Your task to perform on an android device: Show me productivity apps on the Play Store Image 0: 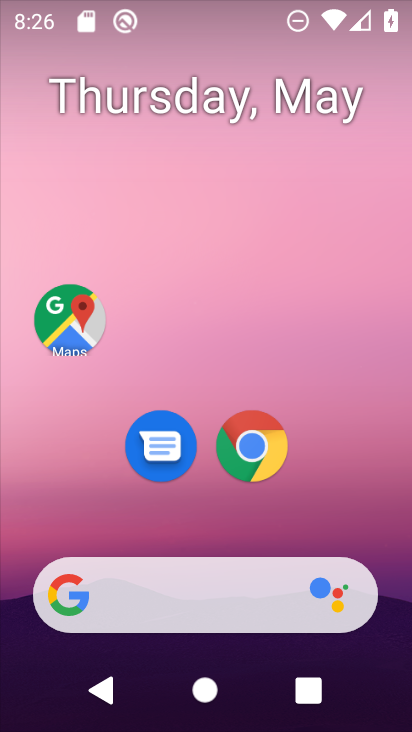
Step 0: drag from (351, 479) to (346, 136)
Your task to perform on an android device: Show me productivity apps on the Play Store Image 1: 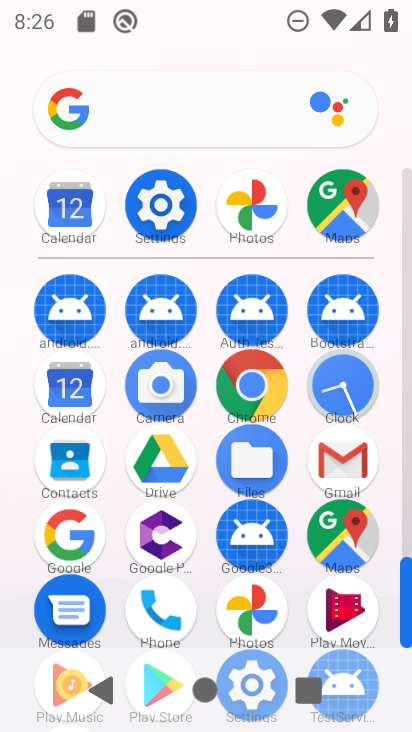
Step 1: drag from (204, 566) to (232, 241)
Your task to perform on an android device: Show me productivity apps on the Play Store Image 2: 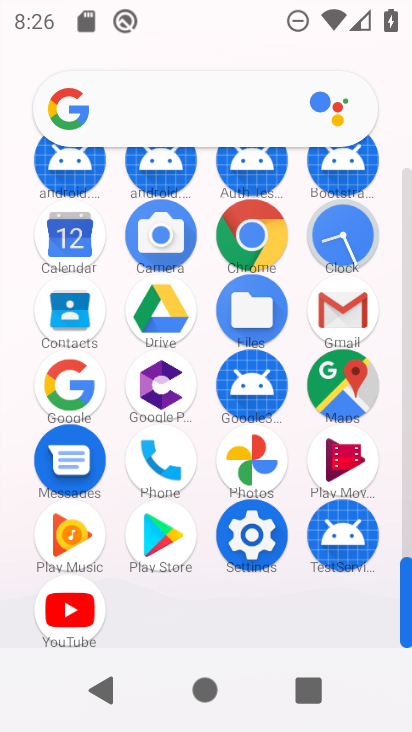
Step 2: click (162, 534)
Your task to perform on an android device: Show me productivity apps on the Play Store Image 3: 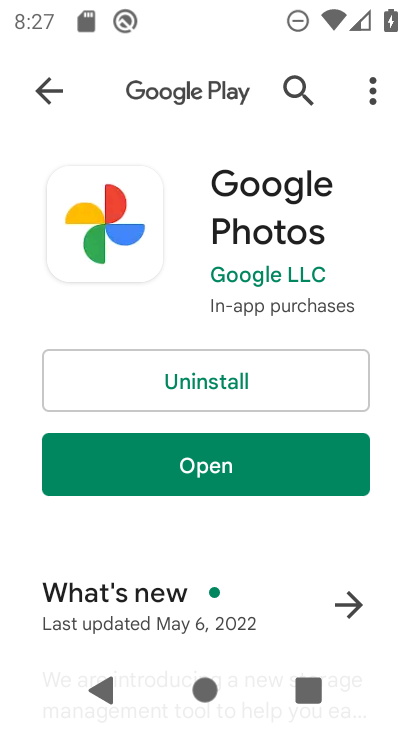
Step 3: press home button
Your task to perform on an android device: Show me productivity apps on the Play Store Image 4: 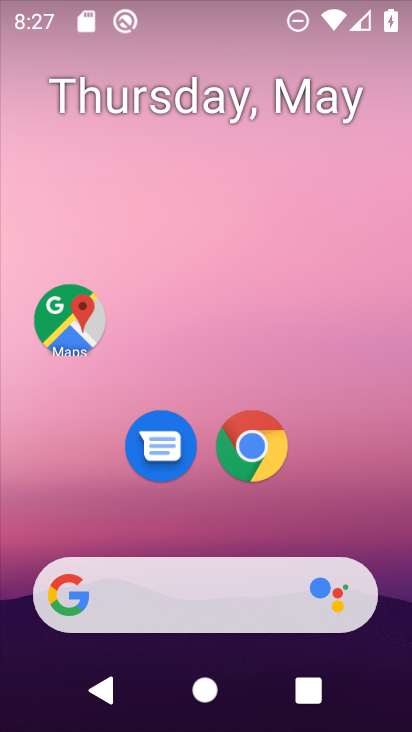
Step 4: drag from (363, 453) to (320, 100)
Your task to perform on an android device: Show me productivity apps on the Play Store Image 5: 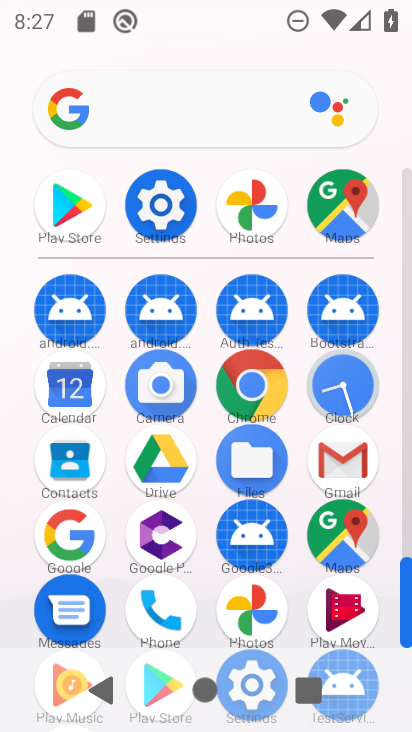
Step 5: drag from (185, 652) to (178, 341)
Your task to perform on an android device: Show me productivity apps on the Play Store Image 6: 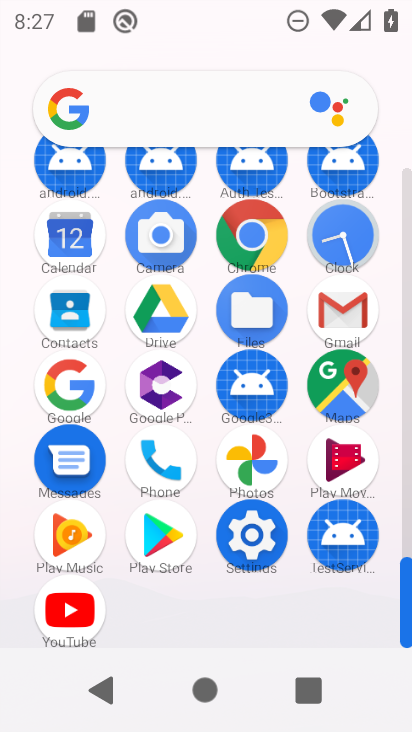
Step 6: click (178, 522)
Your task to perform on an android device: Show me productivity apps on the Play Store Image 7: 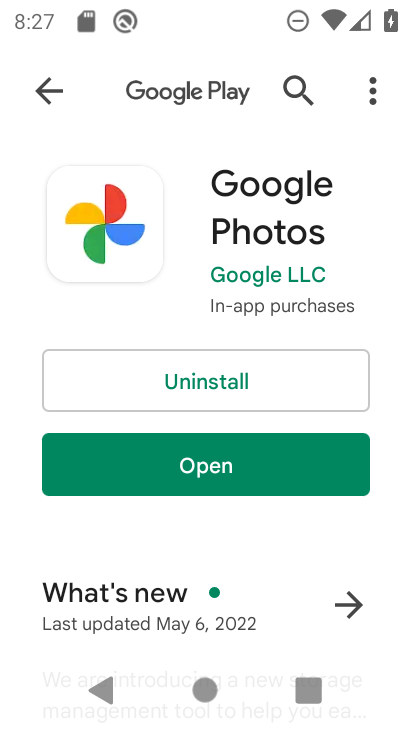
Step 7: click (36, 92)
Your task to perform on an android device: Show me productivity apps on the Play Store Image 8: 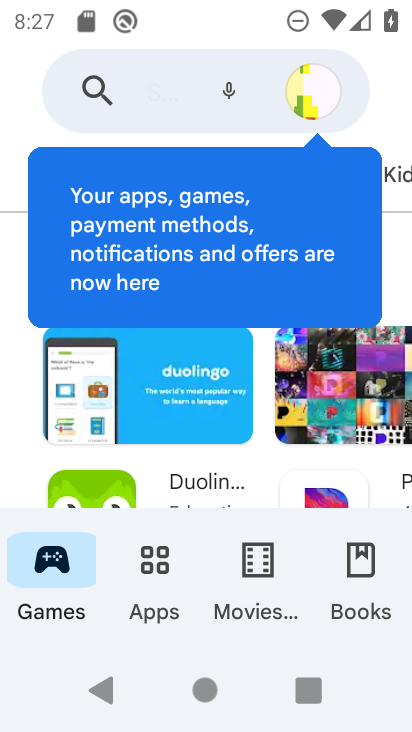
Step 8: click (148, 573)
Your task to perform on an android device: Show me productivity apps on the Play Store Image 9: 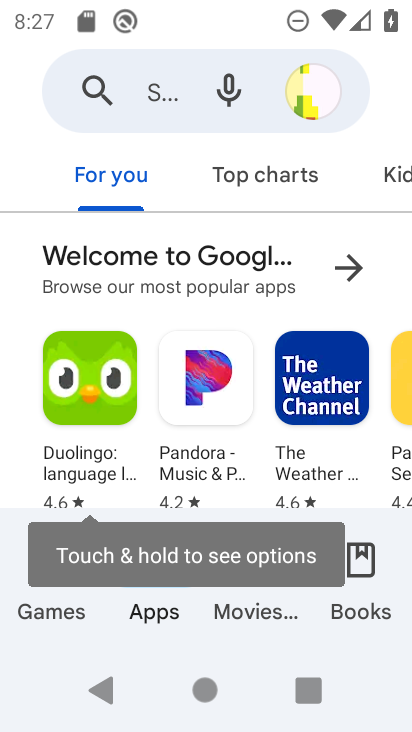
Step 9: drag from (340, 173) to (35, 179)
Your task to perform on an android device: Show me productivity apps on the Play Store Image 10: 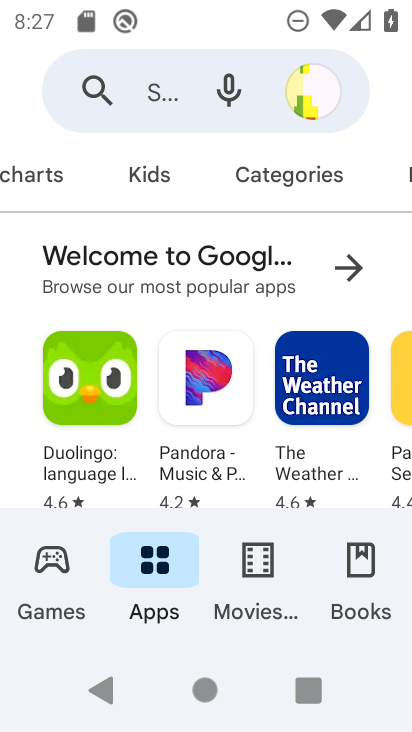
Step 10: click (263, 168)
Your task to perform on an android device: Show me productivity apps on the Play Store Image 11: 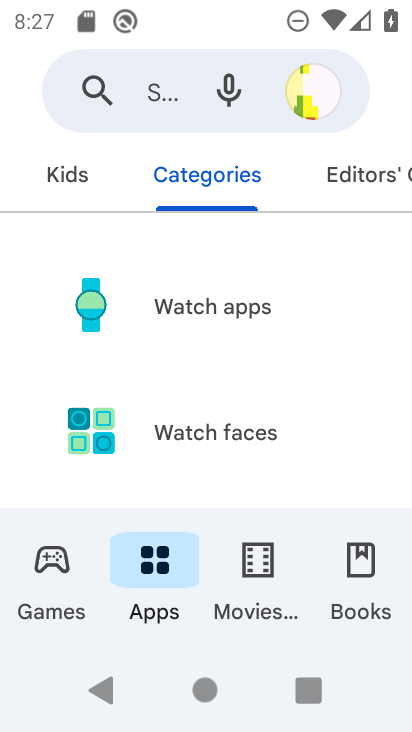
Step 11: drag from (230, 441) to (230, 195)
Your task to perform on an android device: Show me productivity apps on the Play Store Image 12: 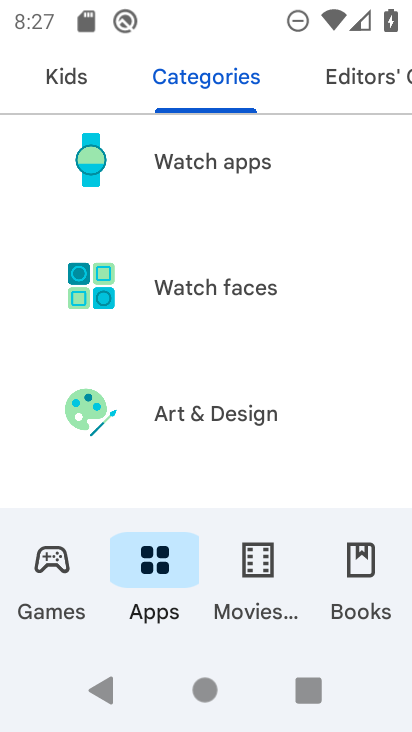
Step 12: drag from (234, 432) to (237, 201)
Your task to perform on an android device: Show me productivity apps on the Play Store Image 13: 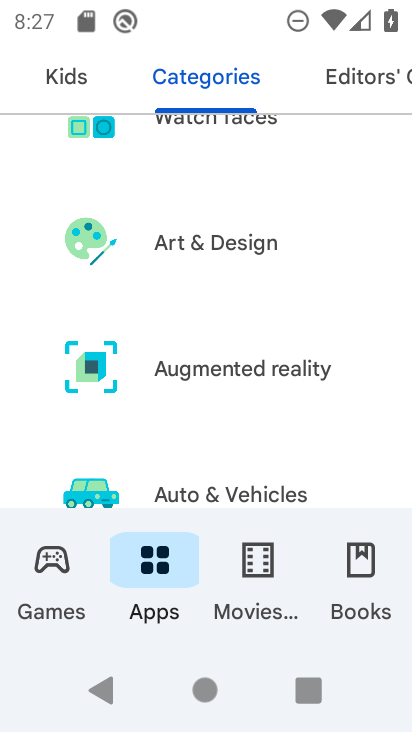
Step 13: drag from (225, 445) to (285, 186)
Your task to perform on an android device: Show me productivity apps on the Play Store Image 14: 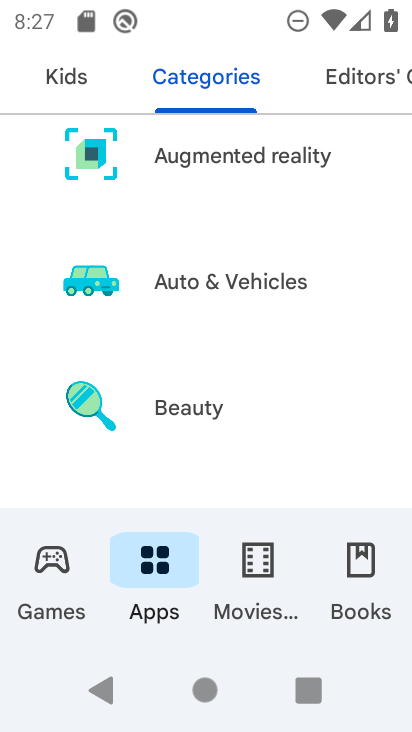
Step 14: drag from (232, 456) to (288, 167)
Your task to perform on an android device: Show me productivity apps on the Play Store Image 15: 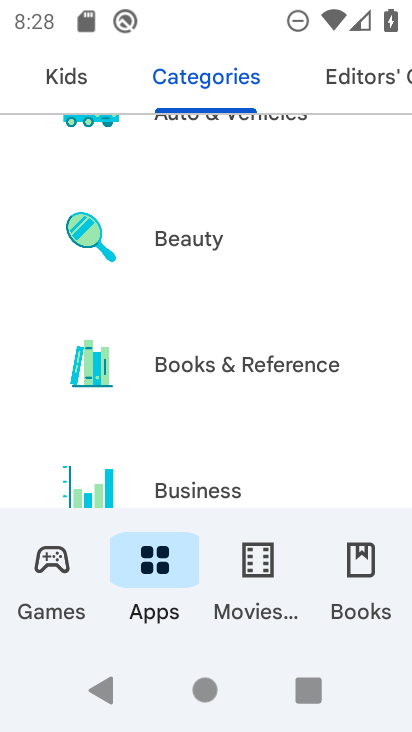
Step 15: drag from (303, 468) to (306, 176)
Your task to perform on an android device: Show me productivity apps on the Play Store Image 16: 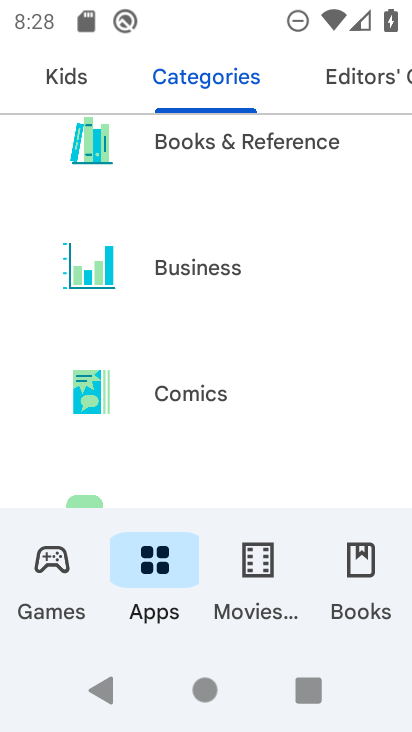
Step 16: drag from (288, 425) to (282, 243)
Your task to perform on an android device: Show me productivity apps on the Play Store Image 17: 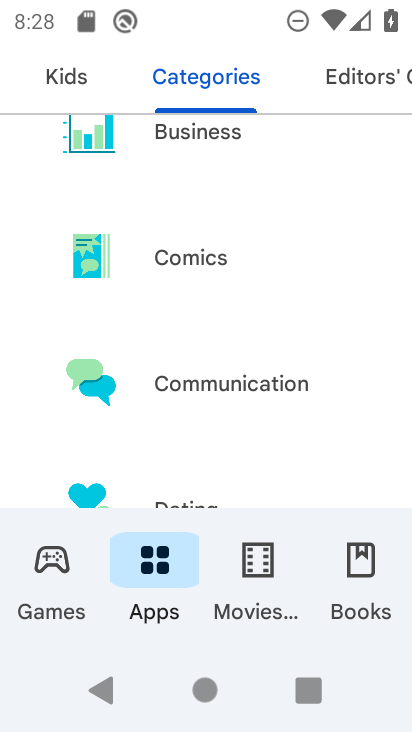
Step 17: drag from (346, 427) to (343, 141)
Your task to perform on an android device: Show me productivity apps on the Play Store Image 18: 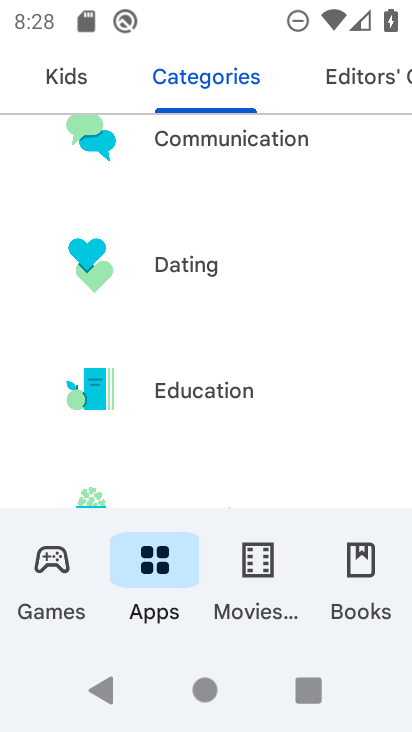
Step 18: drag from (292, 487) to (299, 277)
Your task to perform on an android device: Show me productivity apps on the Play Store Image 19: 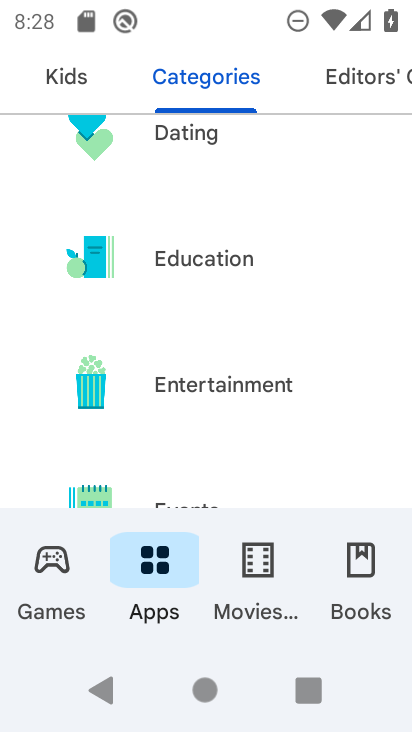
Step 19: drag from (263, 485) to (298, 216)
Your task to perform on an android device: Show me productivity apps on the Play Store Image 20: 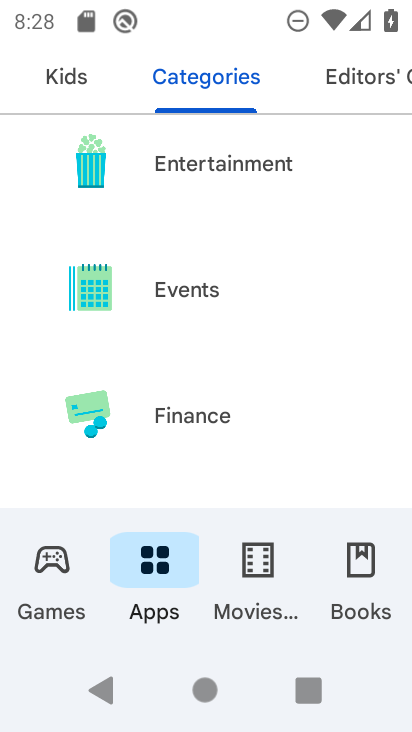
Step 20: drag from (267, 488) to (278, 255)
Your task to perform on an android device: Show me productivity apps on the Play Store Image 21: 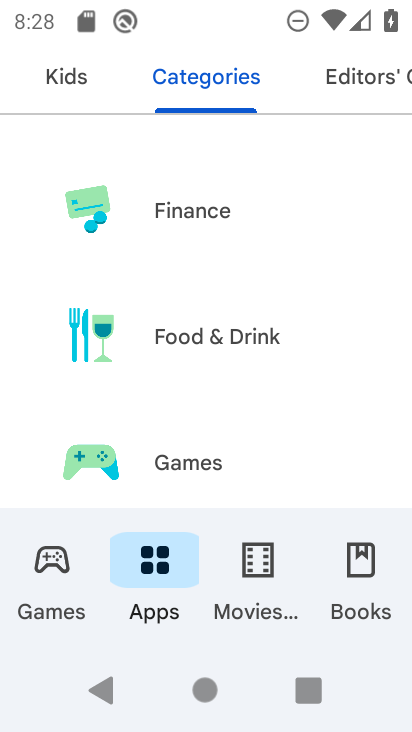
Step 21: drag from (237, 512) to (284, 202)
Your task to perform on an android device: Show me productivity apps on the Play Store Image 22: 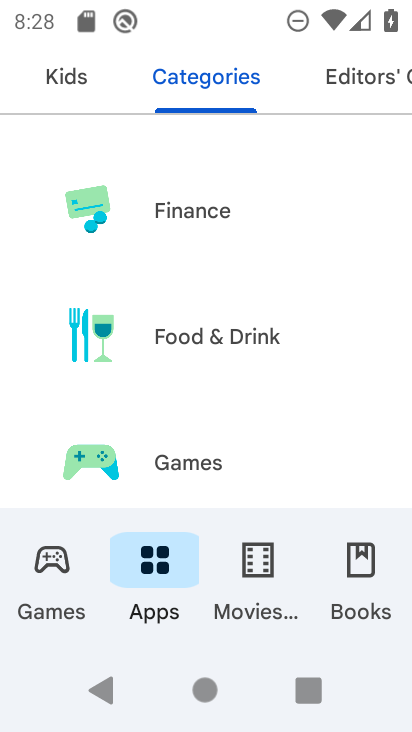
Step 22: drag from (241, 460) to (297, 194)
Your task to perform on an android device: Show me productivity apps on the Play Store Image 23: 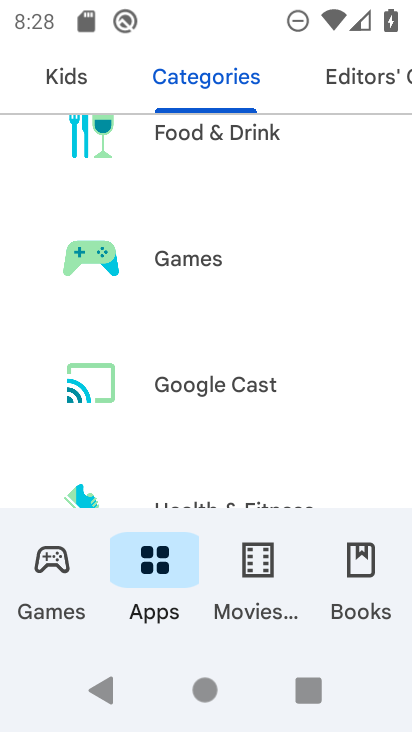
Step 23: drag from (255, 463) to (305, 137)
Your task to perform on an android device: Show me productivity apps on the Play Store Image 24: 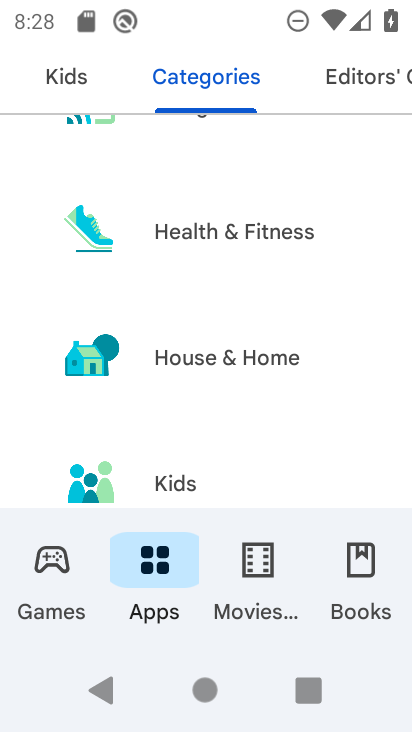
Step 24: drag from (286, 483) to (311, 184)
Your task to perform on an android device: Show me productivity apps on the Play Store Image 25: 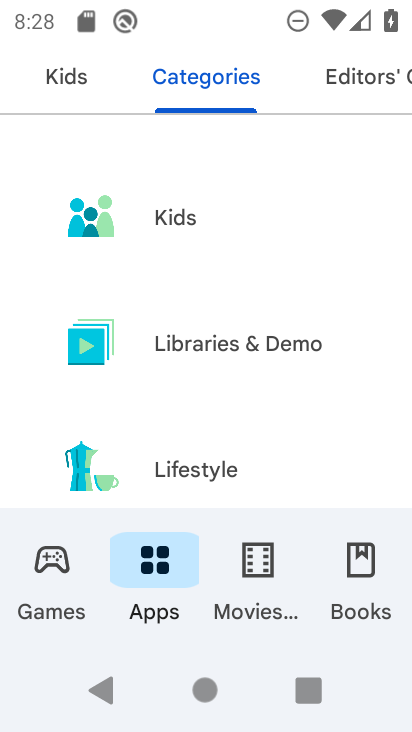
Step 25: drag from (256, 512) to (287, 158)
Your task to perform on an android device: Show me productivity apps on the Play Store Image 26: 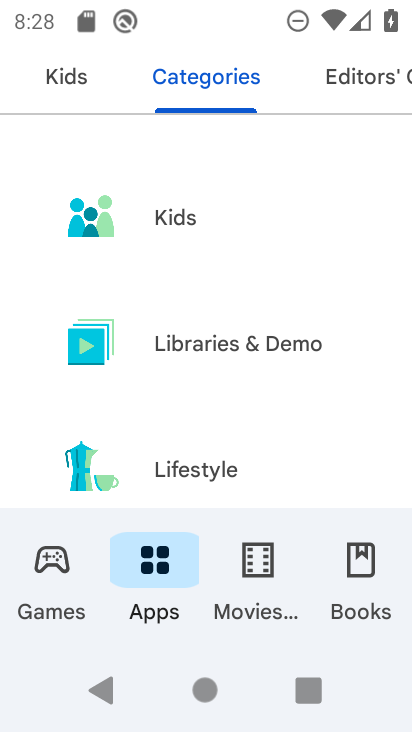
Step 26: drag from (259, 448) to (209, 129)
Your task to perform on an android device: Show me productivity apps on the Play Store Image 27: 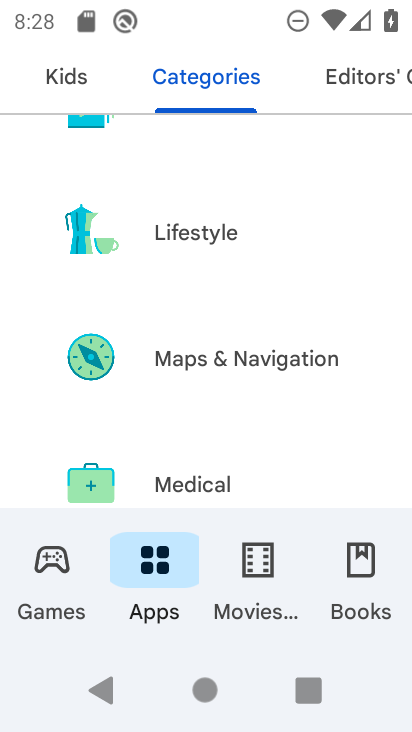
Step 27: drag from (259, 468) to (251, 201)
Your task to perform on an android device: Show me productivity apps on the Play Store Image 28: 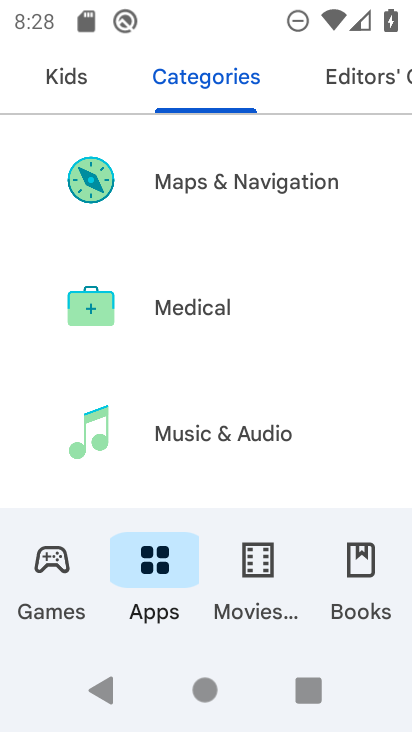
Step 28: drag from (250, 480) to (231, 126)
Your task to perform on an android device: Show me productivity apps on the Play Store Image 29: 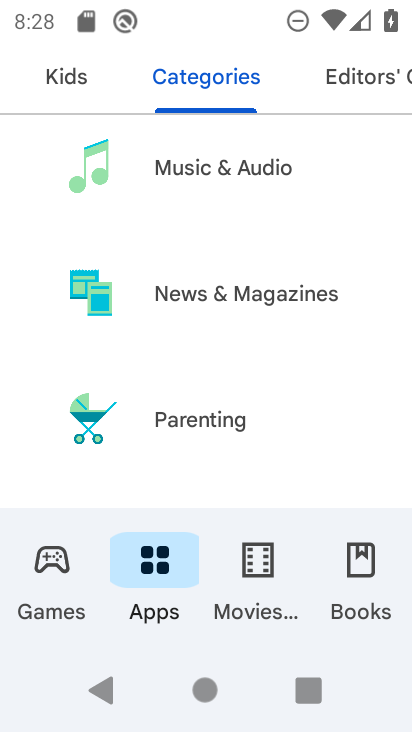
Step 29: drag from (253, 506) to (223, 157)
Your task to perform on an android device: Show me productivity apps on the Play Store Image 30: 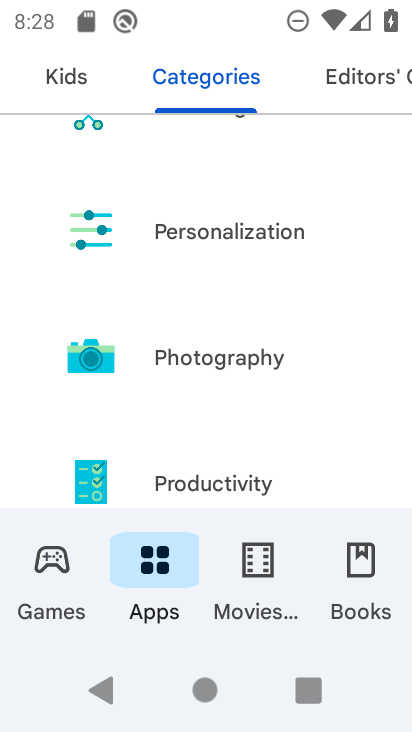
Step 30: click (222, 483)
Your task to perform on an android device: Show me productivity apps on the Play Store Image 31: 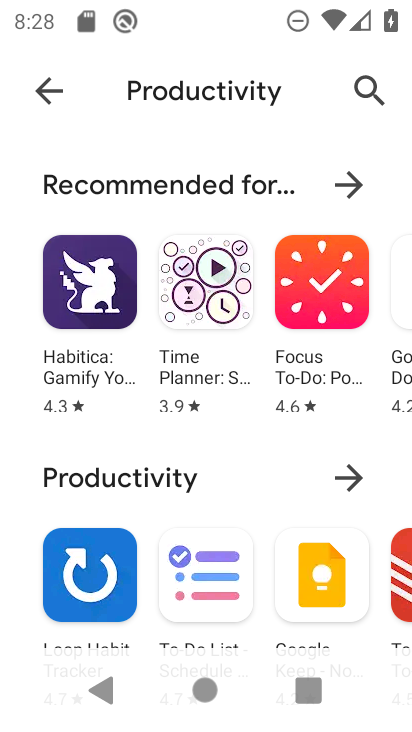
Step 31: task complete